Your task to perform on an android device: check storage Image 0: 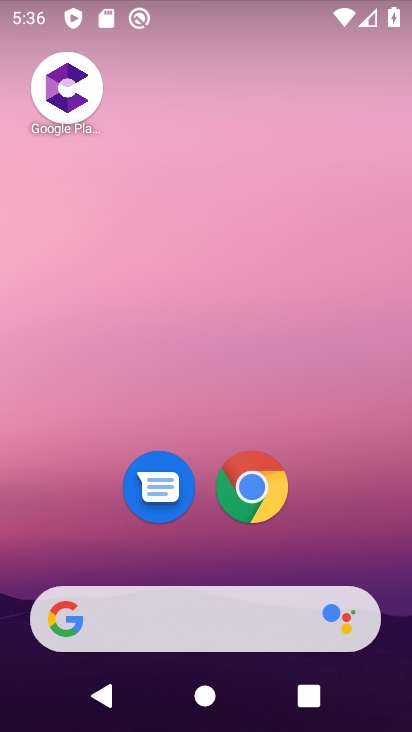
Step 0: drag from (349, 505) to (254, 68)
Your task to perform on an android device: check storage Image 1: 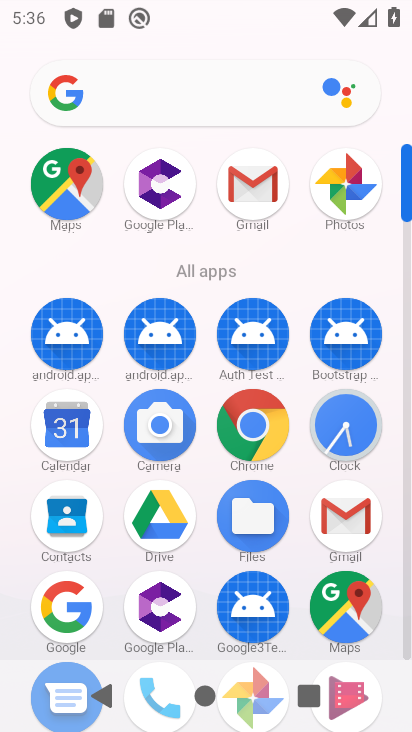
Step 1: drag from (212, 560) to (184, 187)
Your task to perform on an android device: check storage Image 2: 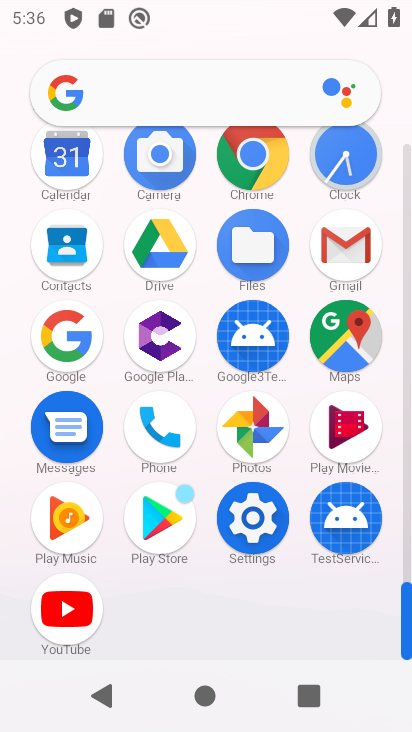
Step 2: click (254, 521)
Your task to perform on an android device: check storage Image 3: 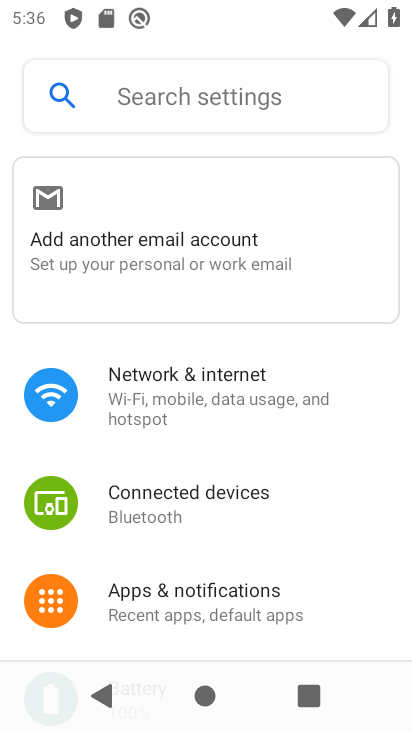
Step 3: drag from (243, 524) to (211, 110)
Your task to perform on an android device: check storage Image 4: 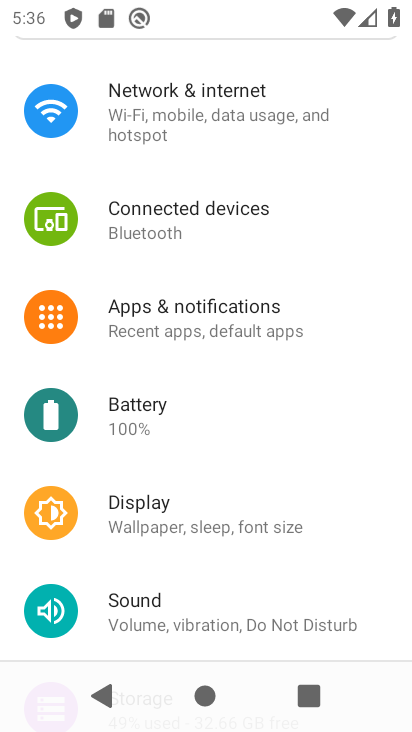
Step 4: drag from (211, 556) to (205, 273)
Your task to perform on an android device: check storage Image 5: 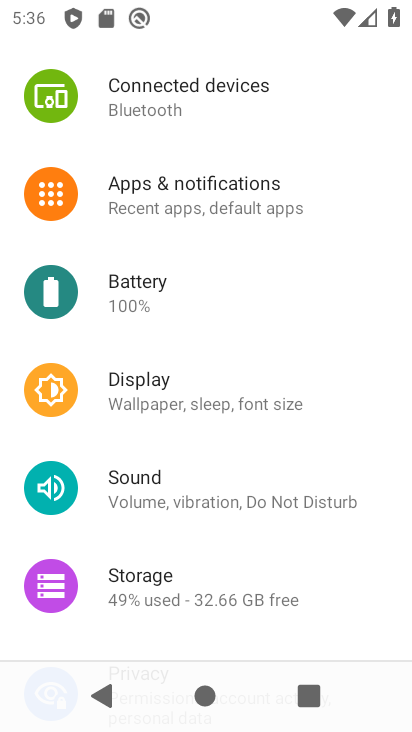
Step 5: click (146, 576)
Your task to perform on an android device: check storage Image 6: 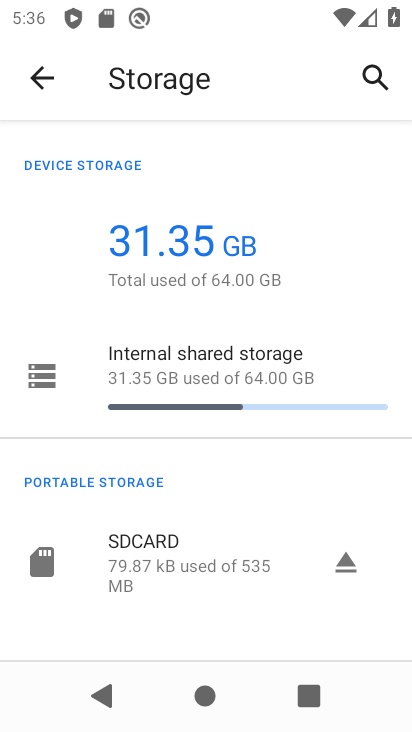
Step 6: task complete